Your task to perform on an android device: snooze an email in the gmail app Image 0: 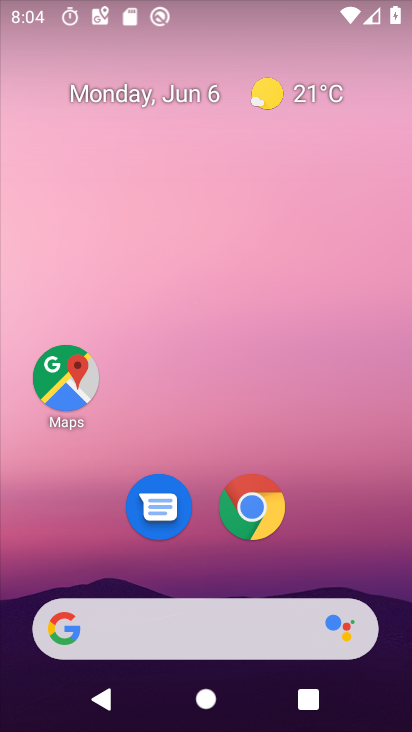
Step 0: drag from (358, 563) to (289, 25)
Your task to perform on an android device: snooze an email in the gmail app Image 1: 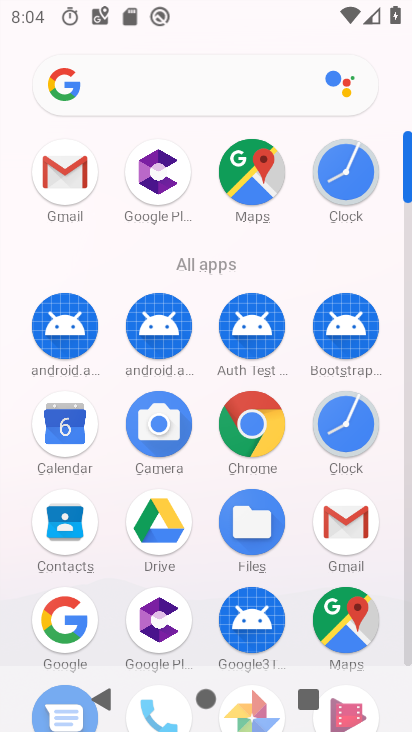
Step 1: click (359, 524)
Your task to perform on an android device: snooze an email in the gmail app Image 2: 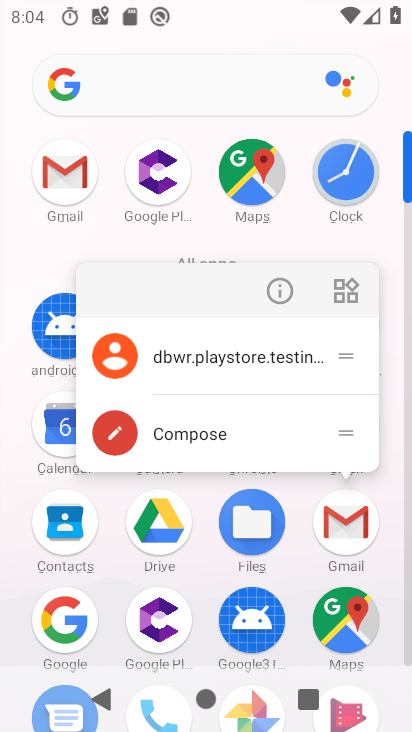
Step 2: click (359, 524)
Your task to perform on an android device: snooze an email in the gmail app Image 3: 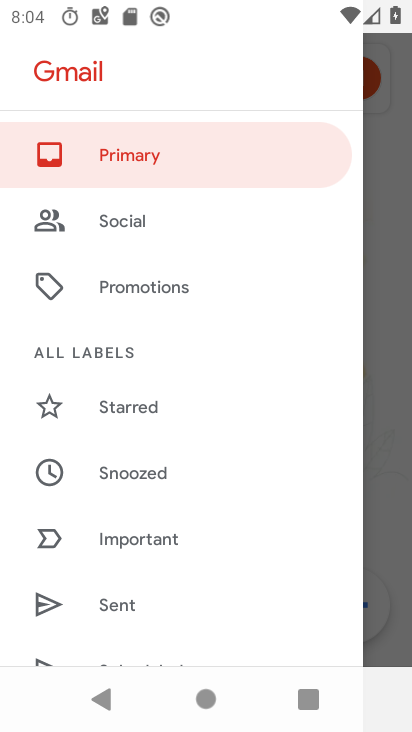
Step 3: task complete